Your task to perform on an android device: change keyboard looks Image 0: 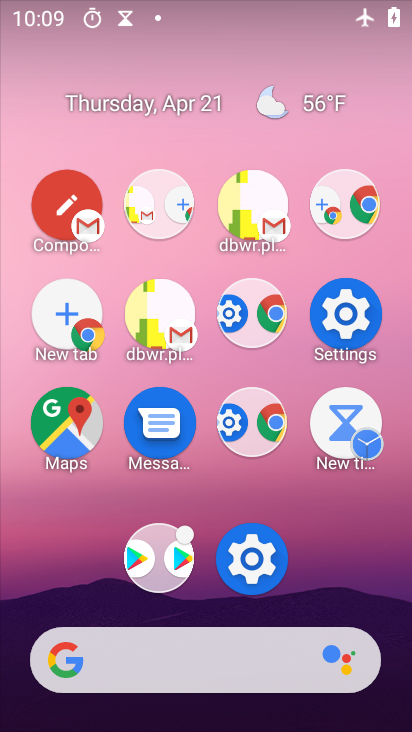
Step 0: click (318, 717)
Your task to perform on an android device: change keyboard looks Image 1: 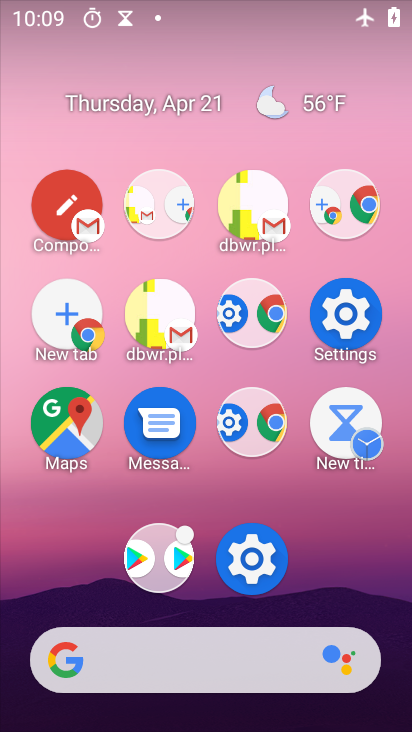
Step 1: drag from (270, 705) to (190, 143)
Your task to perform on an android device: change keyboard looks Image 2: 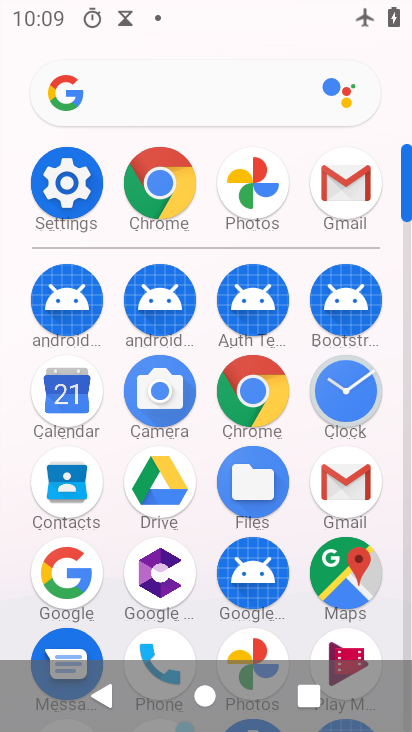
Step 2: drag from (285, 659) to (269, 219)
Your task to perform on an android device: change keyboard looks Image 3: 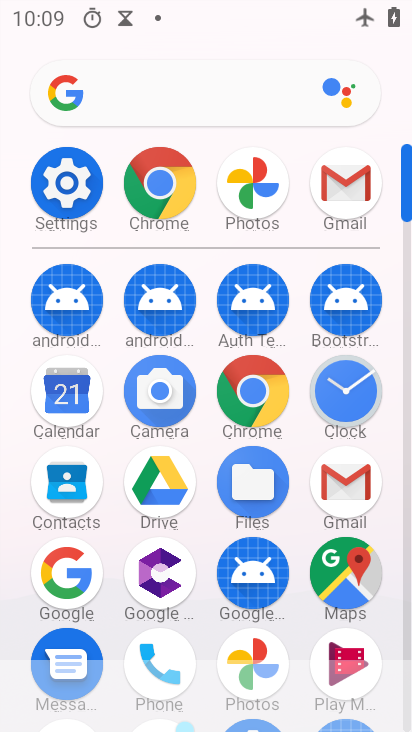
Step 3: click (249, 393)
Your task to perform on an android device: change keyboard looks Image 4: 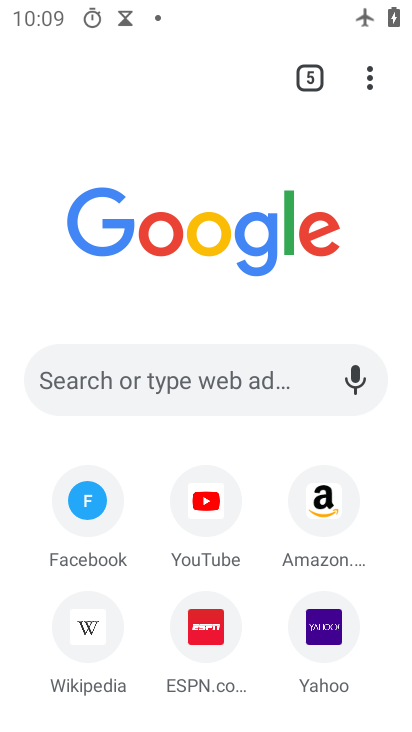
Step 4: press home button
Your task to perform on an android device: change keyboard looks Image 5: 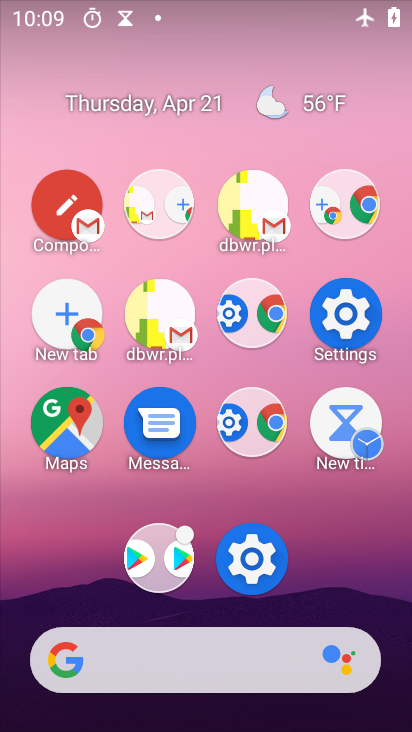
Step 5: drag from (332, 597) to (221, 108)
Your task to perform on an android device: change keyboard looks Image 6: 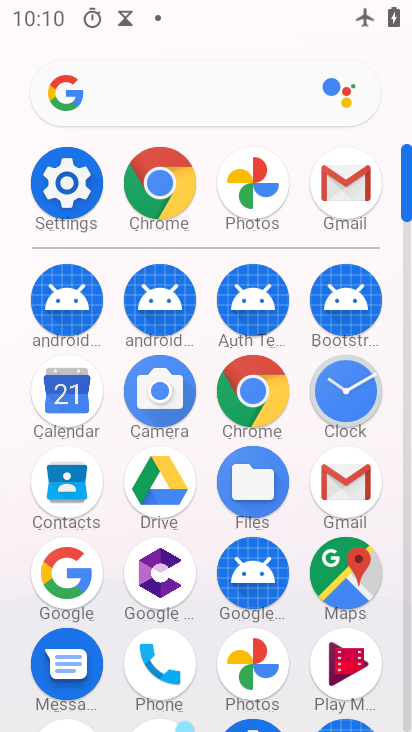
Step 6: click (72, 179)
Your task to perform on an android device: change keyboard looks Image 7: 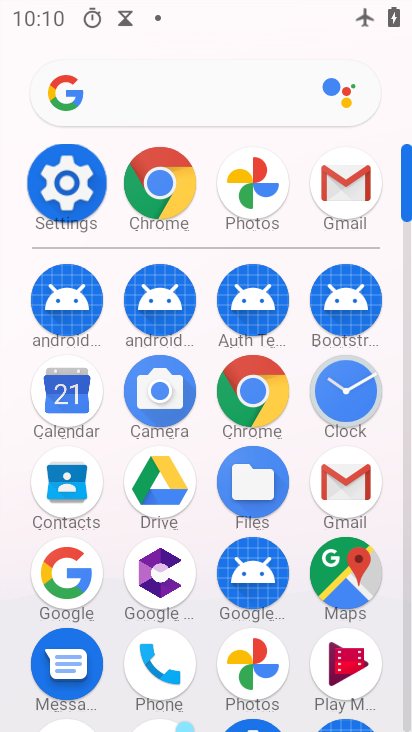
Step 7: click (73, 189)
Your task to perform on an android device: change keyboard looks Image 8: 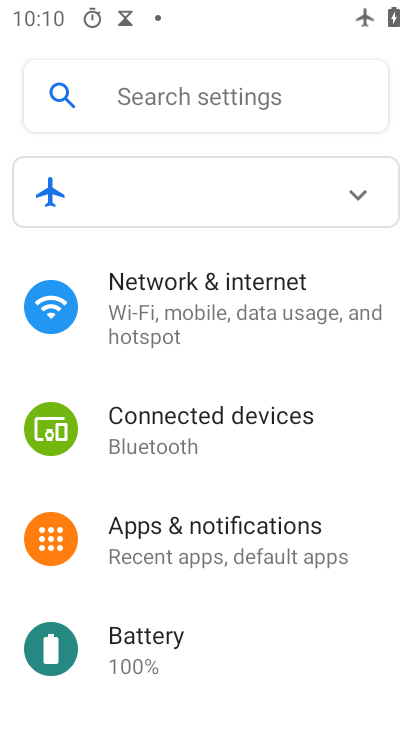
Step 8: click (73, 189)
Your task to perform on an android device: change keyboard looks Image 9: 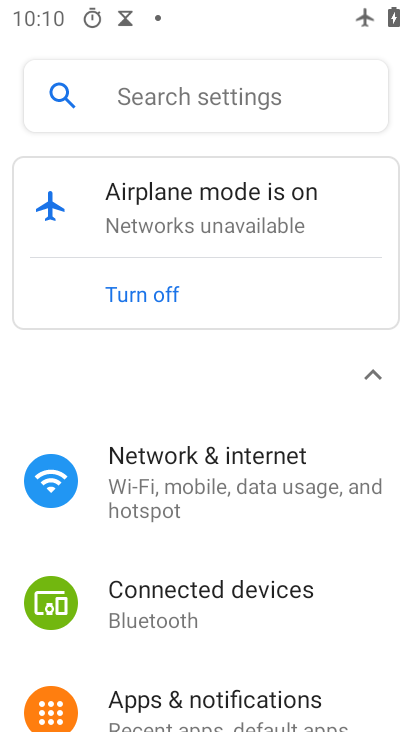
Step 9: drag from (240, 621) to (219, 353)
Your task to perform on an android device: change keyboard looks Image 10: 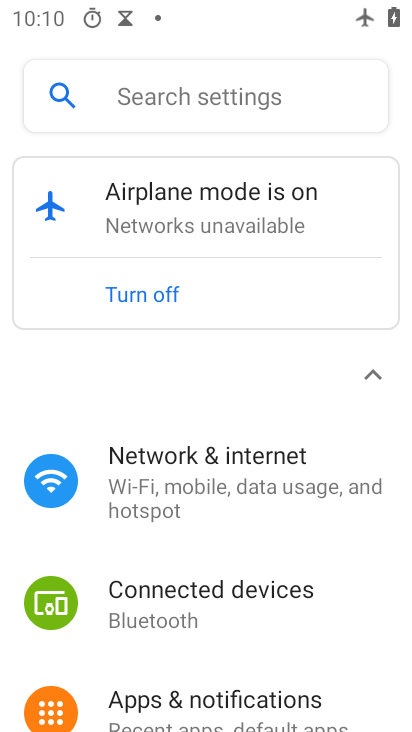
Step 10: click (189, 289)
Your task to perform on an android device: change keyboard looks Image 11: 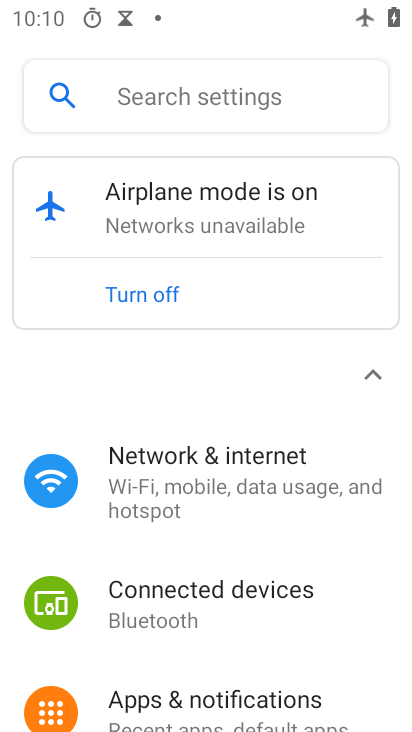
Step 11: drag from (227, 566) to (217, 243)
Your task to perform on an android device: change keyboard looks Image 12: 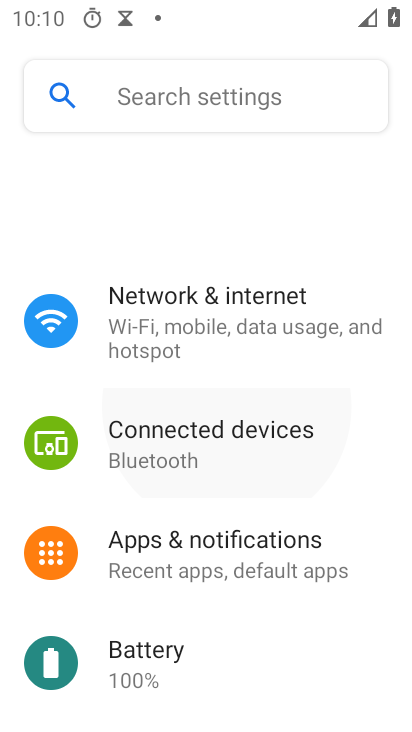
Step 12: drag from (235, 535) to (228, 195)
Your task to perform on an android device: change keyboard looks Image 13: 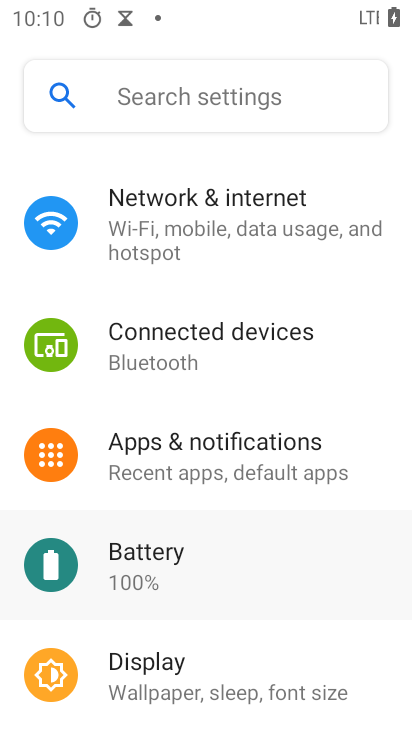
Step 13: drag from (221, 539) to (278, 255)
Your task to perform on an android device: change keyboard looks Image 14: 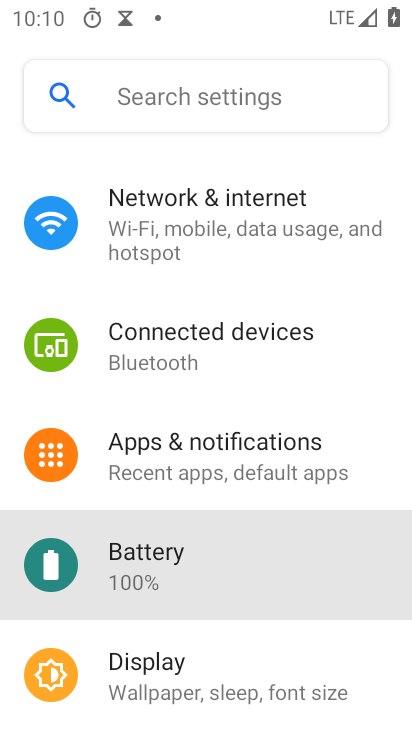
Step 14: drag from (284, 625) to (294, 158)
Your task to perform on an android device: change keyboard looks Image 15: 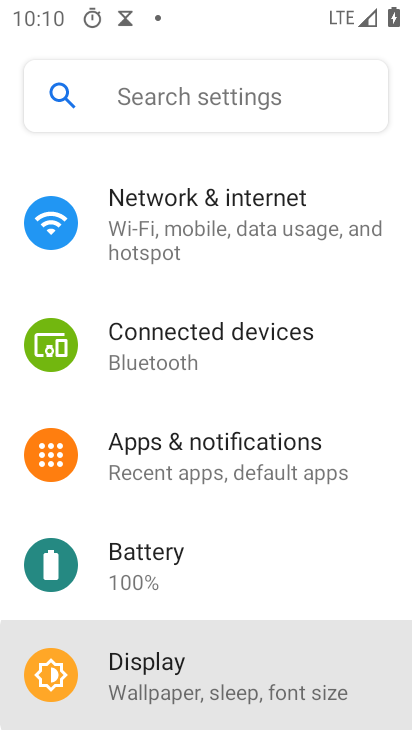
Step 15: drag from (186, 591) to (184, 311)
Your task to perform on an android device: change keyboard looks Image 16: 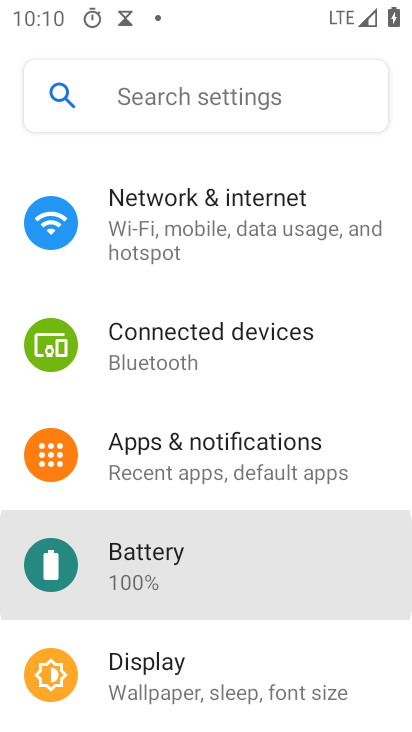
Step 16: drag from (211, 604) to (184, 186)
Your task to perform on an android device: change keyboard looks Image 17: 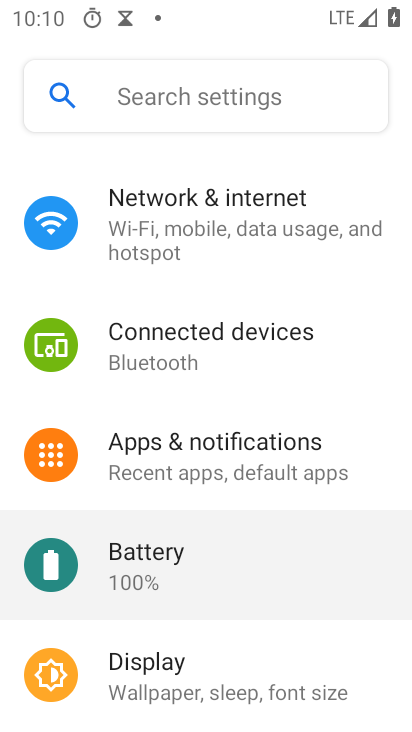
Step 17: drag from (208, 581) to (183, 199)
Your task to perform on an android device: change keyboard looks Image 18: 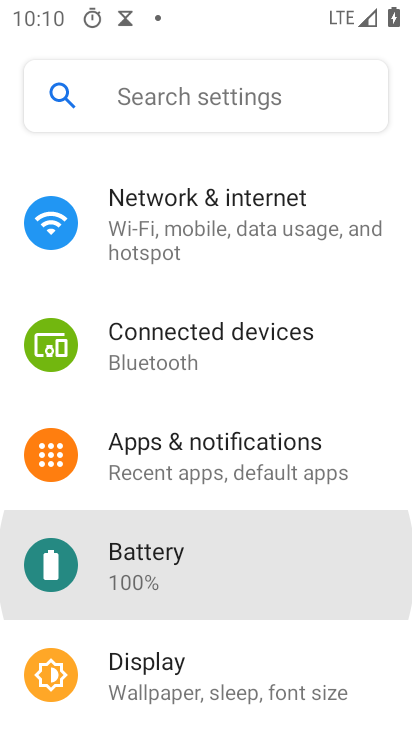
Step 18: drag from (217, 584) to (263, 412)
Your task to perform on an android device: change keyboard looks Image 19: 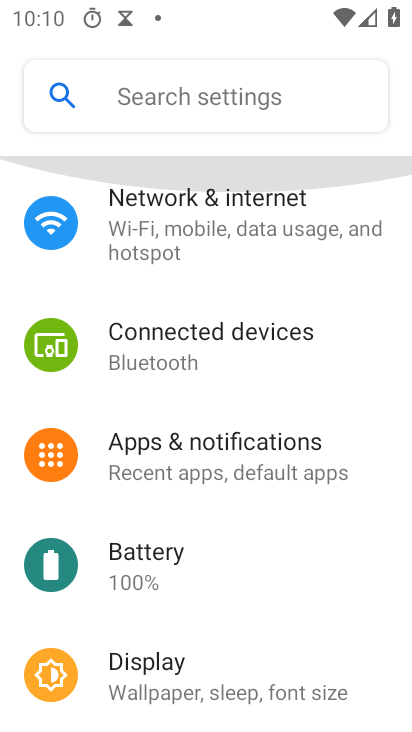
Step 19: drag from (206, 683) to (204, 392)
Your task to perform on an android device: change keyboard looks Image 20: 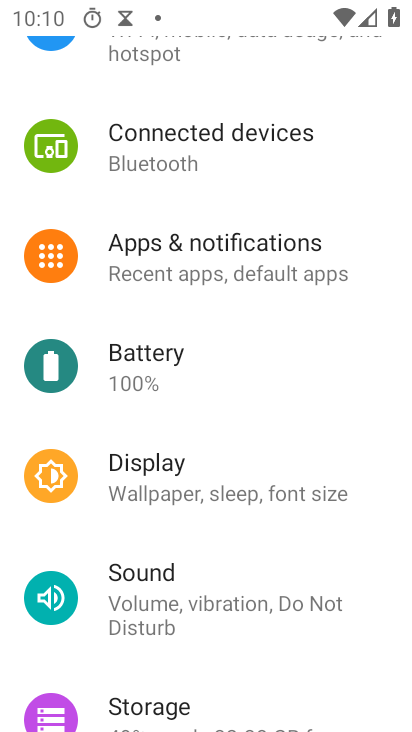
Step 20: drag from (207, 549) to (76, 177)
Your task to perform on an android device: change keyboard looks Image 21: 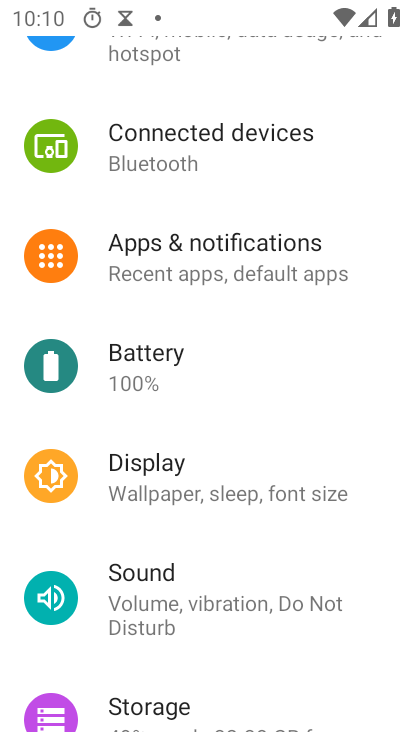
Step 21: drag from (245, 583) to (154, 377)
Your task to perform on an android device: change keyboard looks Image 22: 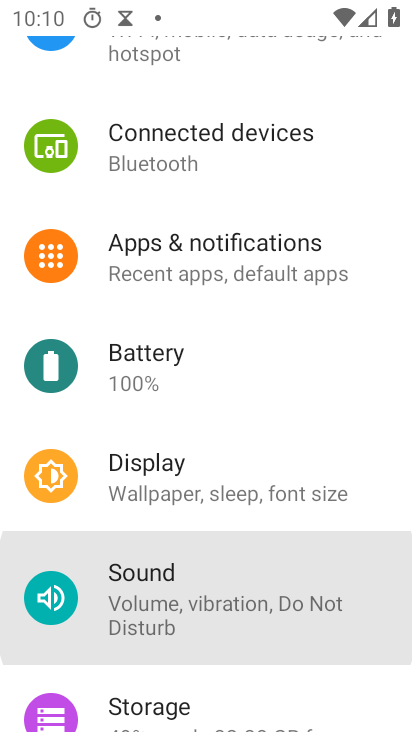
Step 22: drag from (272, 598) to (243, 242)
Your task to perform on an android device: change keyboard looks Image 23: 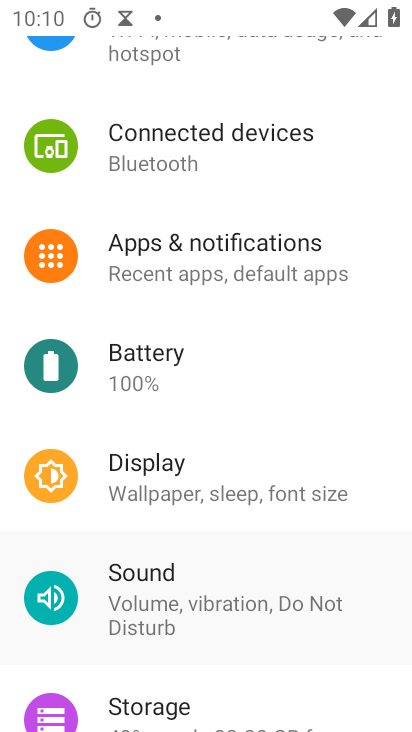
Step 23: drag from (250, 513) to (229, 241)
Your task to perform on an android device: change keyboard looks Image 24: 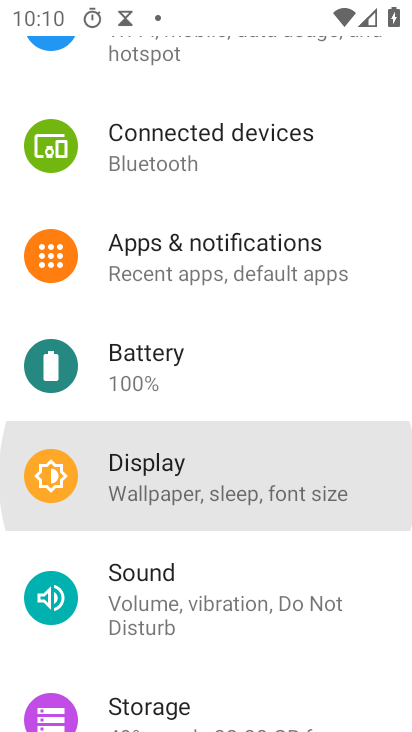
Step 24: drag from (270, 595) to (266, 207)
Your task to perform on an android device: change keyboard looks Image 25: 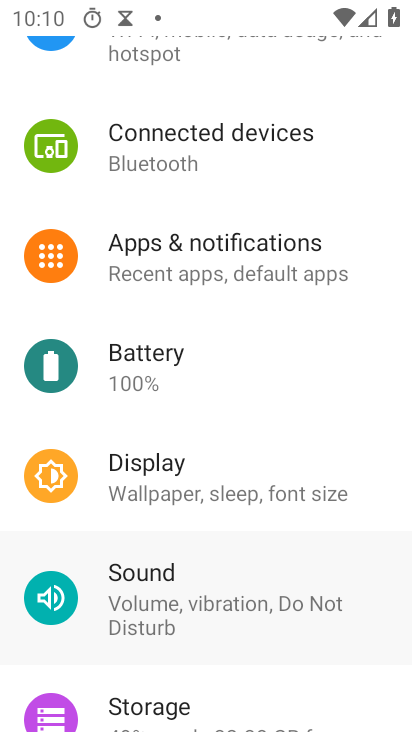
Step 25: drag from (209, 453) to (170, 207)
Your task to perform on an android device: change keyboard looks Image 26: 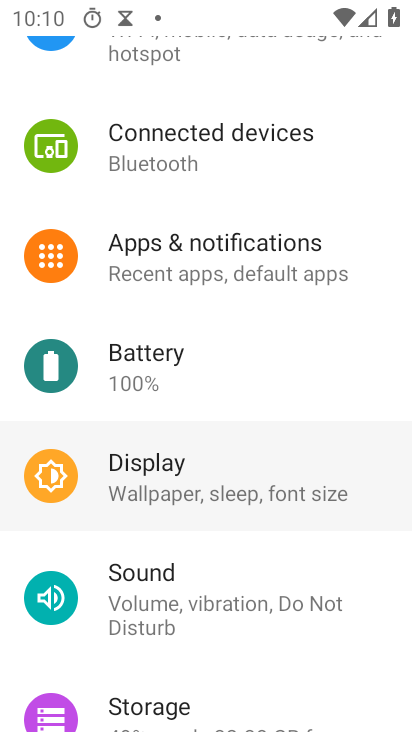
Step 26: drag from (251, 608) to (233, 209)
Your task to perform on an android device: change keyboard looks Image 27: 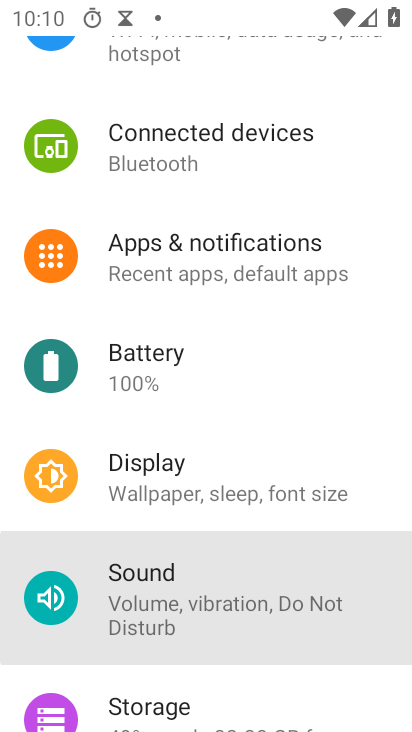
Step 27: drag from (175, 653) to (169, 232)
Your task to perform on an android device: change keyboard looks Image 28: 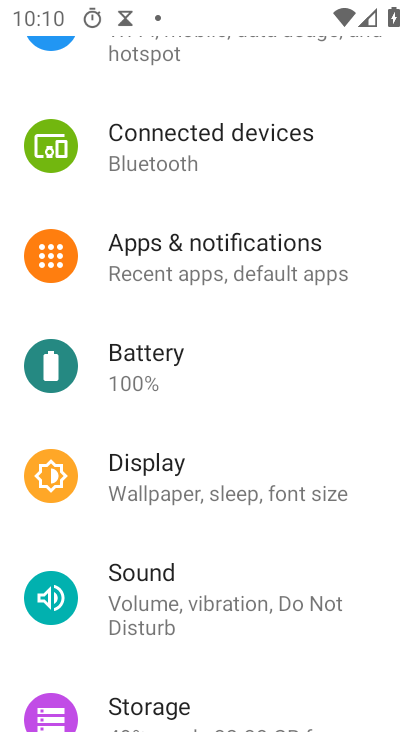
Step 28: drag from (191, 621) to (140, 179)
Your task to perform on an android device: change keyboard looks Image 29: 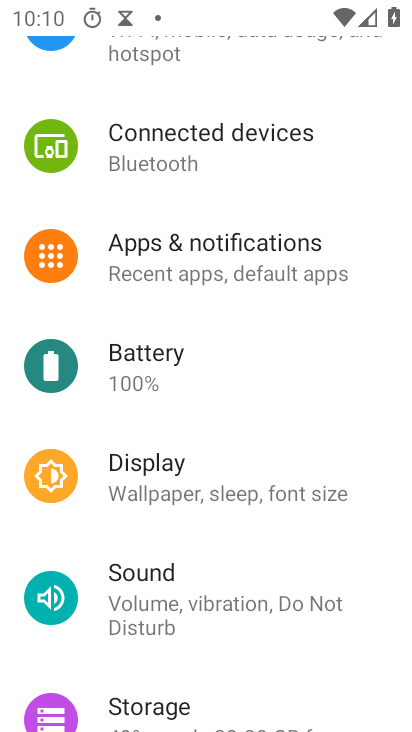
Step 29: drag from (261, 619) to (177, 328)
Your task to perform on an android device: change keyboard looks Image 30: 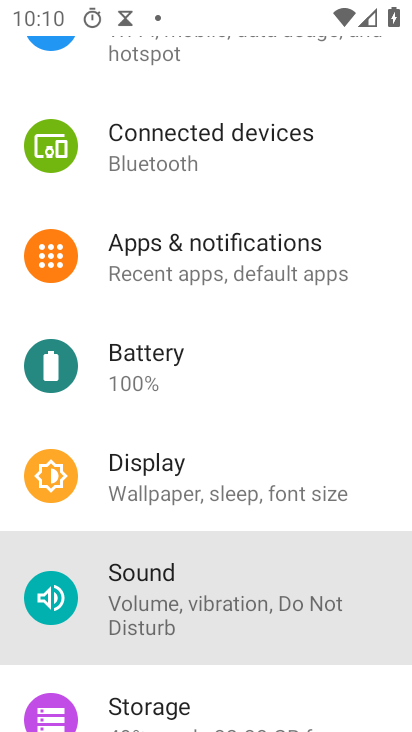
Step 30: drag from (207, 604) to (169, 309)
Your task to perform on an android device: change keyboard looks Image 31: 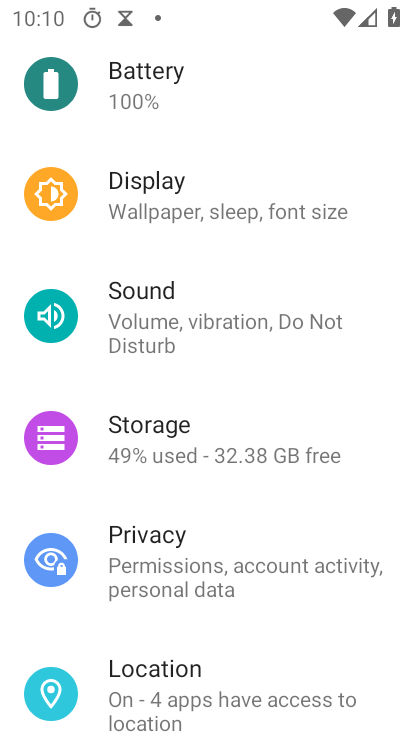
Step 31: drag from (216, 633) to (198, 275)
Your task to perform on an android device: change keyboard looks Image 32: 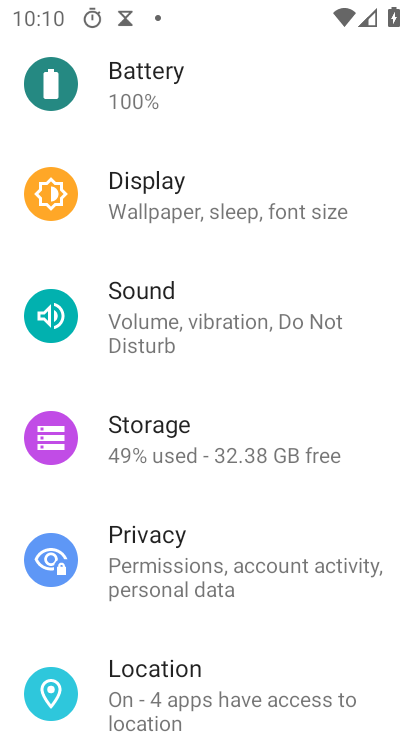
Step 32: drag from (222, 542) to (211, 181)
Your task to perform on an android device: change keyboard looks Image 33: 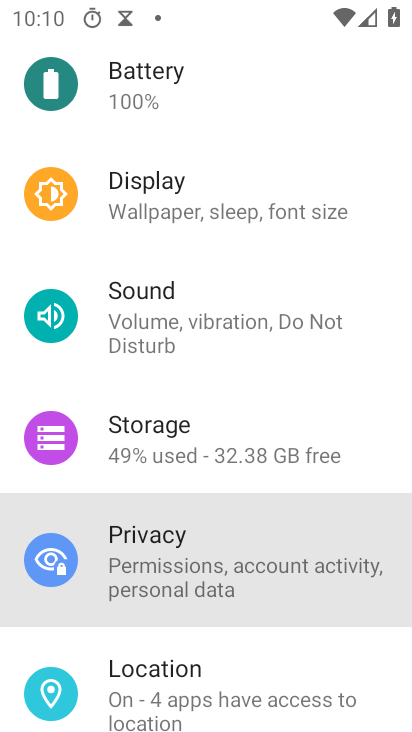
Step 33: drag from (286, 605) to (267, 133)
Your task to perform on an android device: change keyboard looks Image 34: 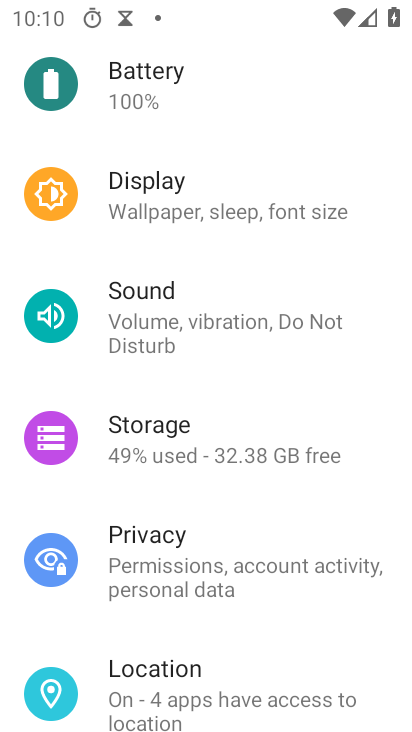
Step 34: drag from (221, 569) to (206, 322)
Your task to perform on an android device: change keyboard looks Image 35: 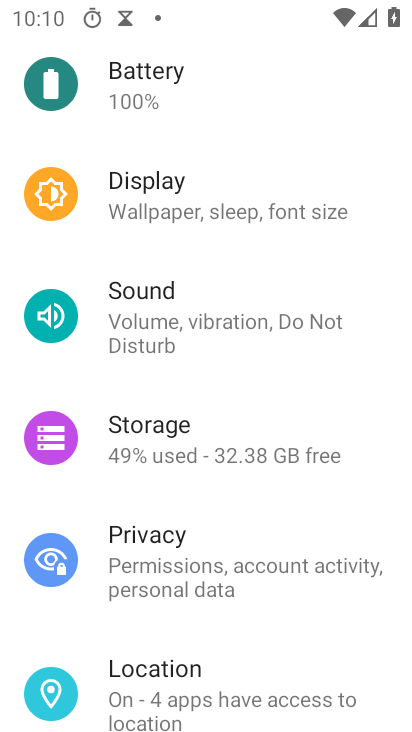
Step 35: drag from (243, 592) to (188, 204)
Your task to perform on an android device: change keyboard looks Image 36: 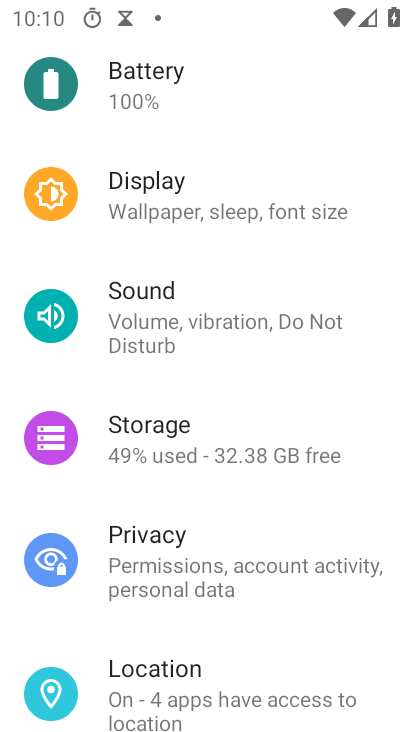
Step 36: drag from (185, 583) to (179, 214)
Your task to perform on an android device: change keyboard looks Image 37: 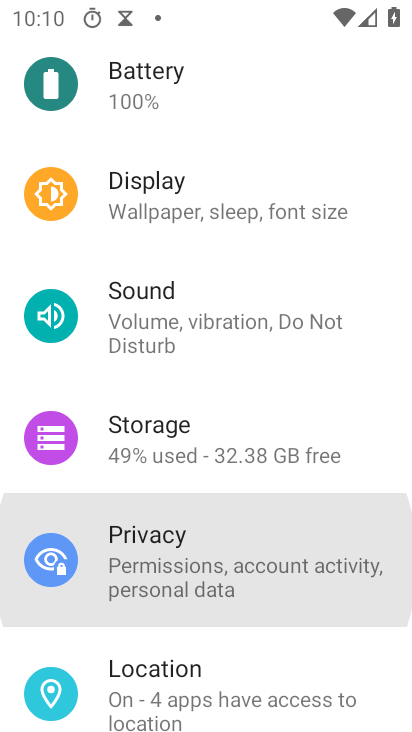
Step 37: drag from (265, 533) to (239, 153)
Your task to perform on an android device: change keyboard looks Image 38: 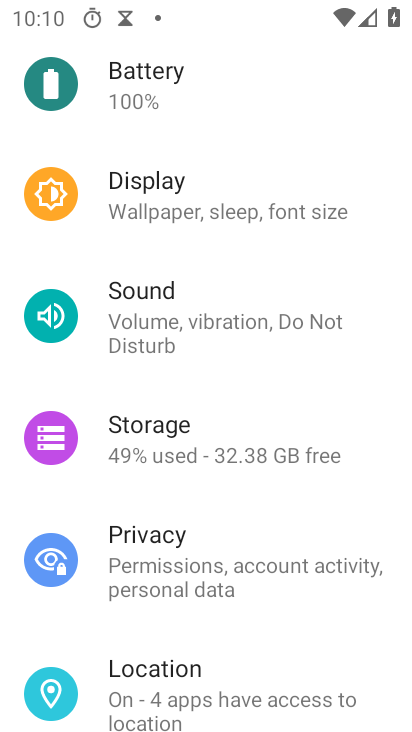
Step 38: drag from (182, 422) to (194, 208)
Your task to perform on an android device: change keyboard looks Image 39: 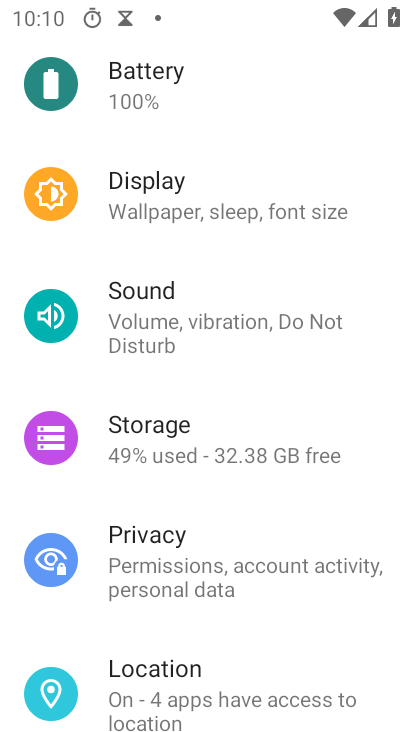
Step 39: click (183, 224)
Your task to perform on an android device: change keyboard looks Image 40: 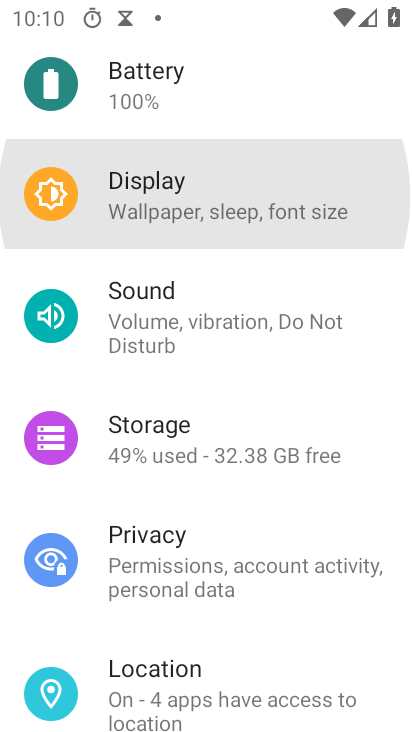
Step 40: drag from (259, 541) to (223, 161)
Your task to perform on an android device: change keyboard looks Image 41: 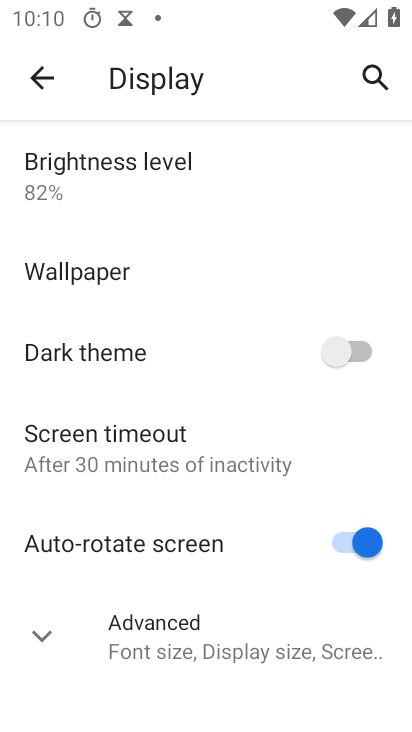
Step 41: drag from (258, 522) to (219, 179)
Your task to perform on an android device: change keyboard looks Image 42: 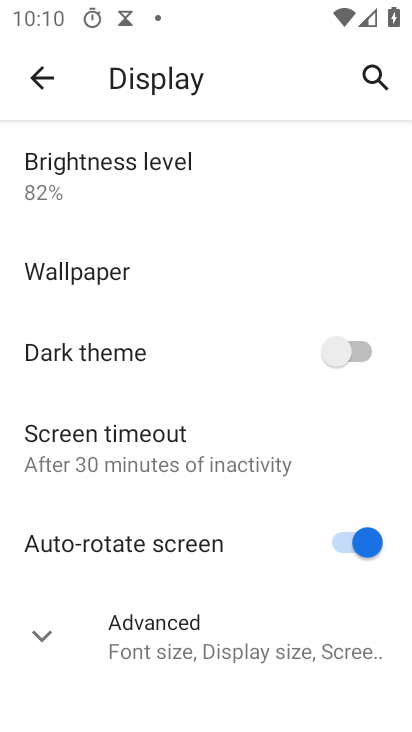
Step 42: click (34, 71)
Your task to perform on an android device: change keyboard looks Image 43: 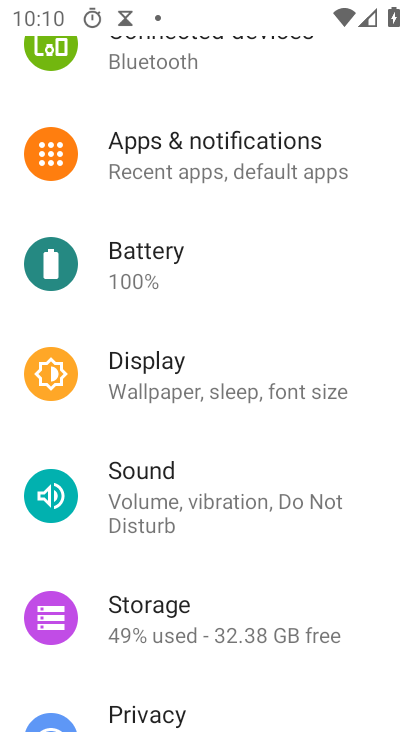
Step 43: drag from (195, 604) to (179, 332)
Your task to perform on an android device: change keyboard looks Image 44: 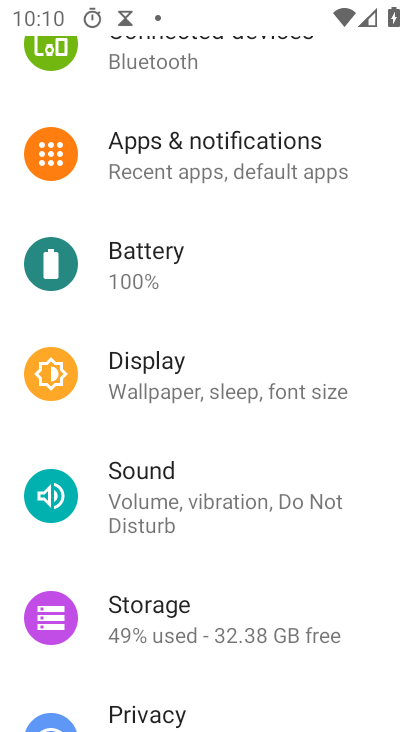
Step 44: drag from (200, 570) to (192, 311)
Your task to perform on an android device: change keyboard looks Image 45: 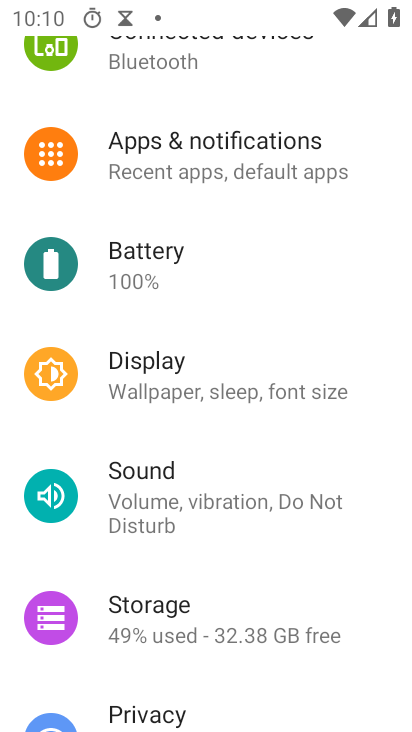
Step 45: drag from (181, 609) to (360, 470)
Your task to perform on an android device: change keyboard looks Image 46: 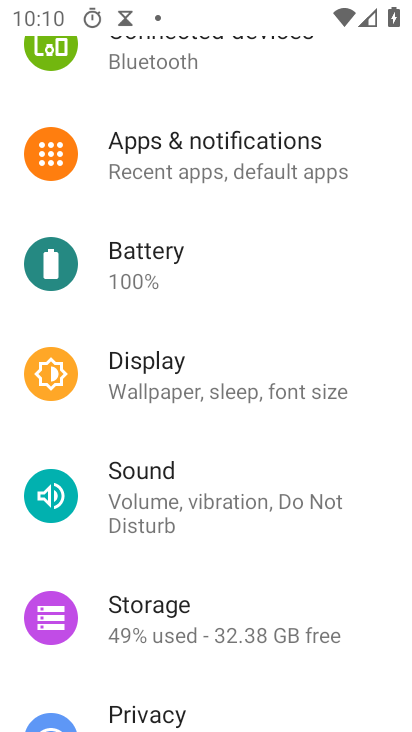
Step 46: drag from (193, 569) to (146, 203)
Your task to perform on an android device: change keyboard looks Image 47: 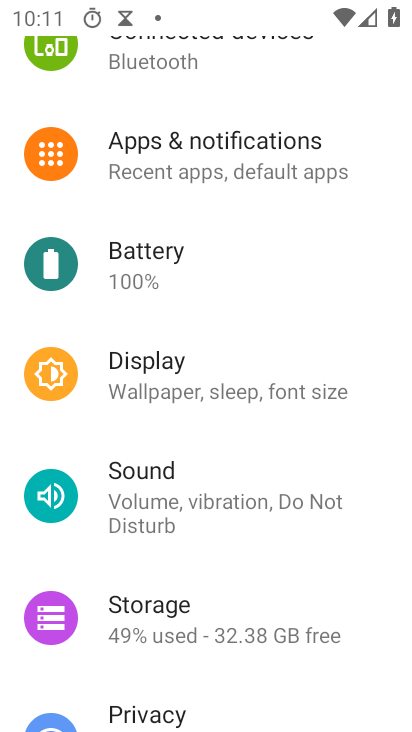
Step 47: drag from (153, 462) to (170, 168)
Your task to perform on an android device: change keyboard looks Image 48: 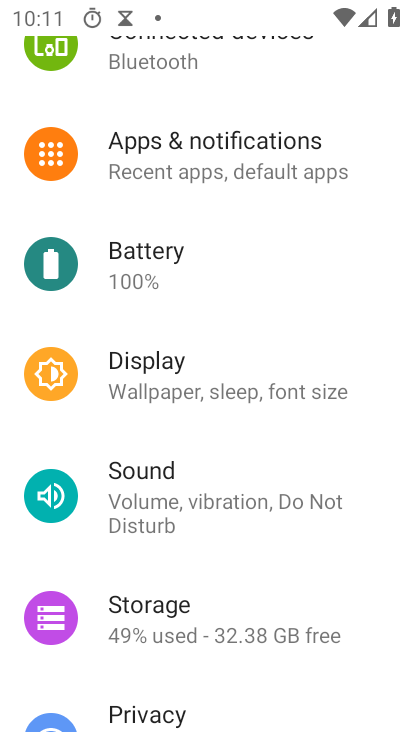
Step 48: drag from (214, 458) to (204, 178)
Your task to perform on an android device: change keyboard looks Image 49: 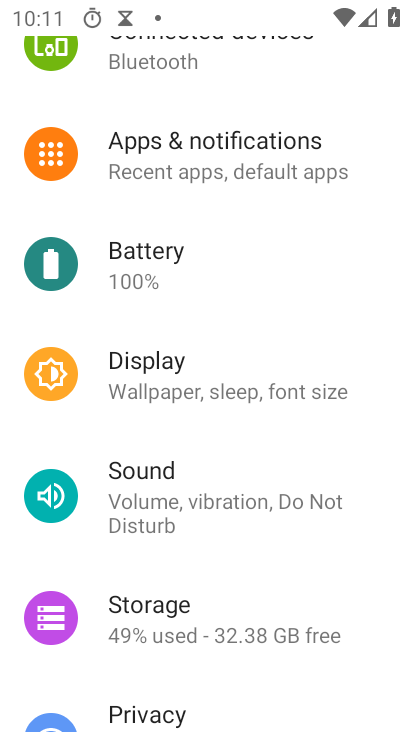
Step 49: click (184, 130)
Your task to perform on an android device: change keyboard looks Image 50: 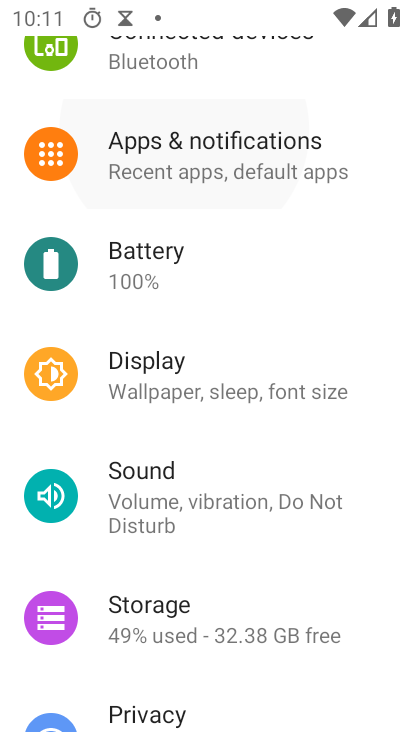
Step 50: drag from (247, 584) to (243, 238)
Your task to perform on an android device: change keyboard looks Image 51: 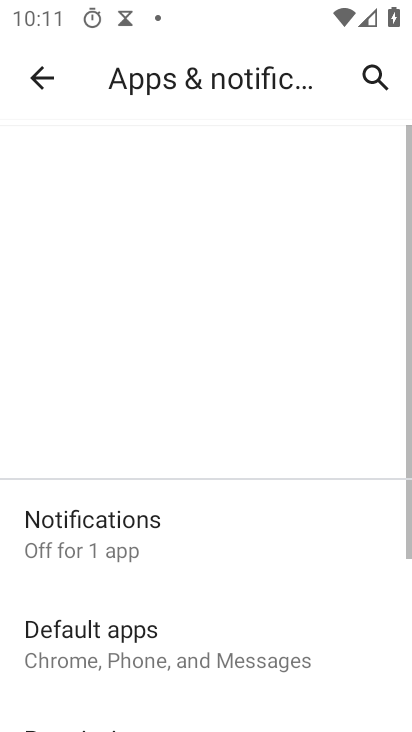
Step 51: drag from (223, 524) to (203, 212)
Your task to perform on an android device: change keyboard looks Image 52: 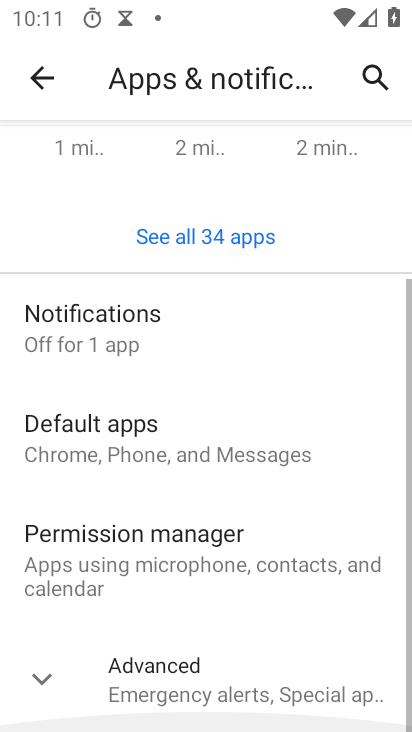
Step 52: click (42, 78)
Your task to perform on an android device: change keyboard looks Image 53: 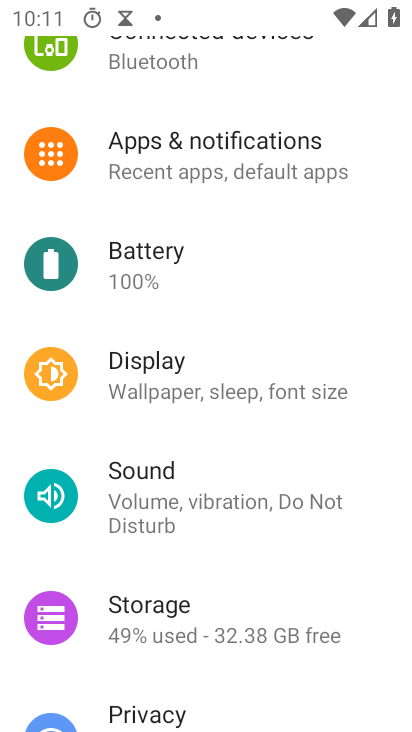
Step 53: drag from (207, 517) to (411, 520)
Your task to perform on an android device: change keyboard looks Image 54: 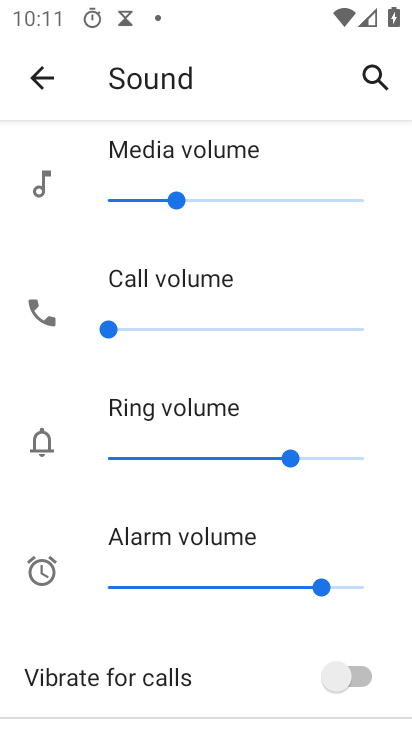
Step 54: click (40, 73)
Your task to perform on an android device: change keyboard looks Image 55: 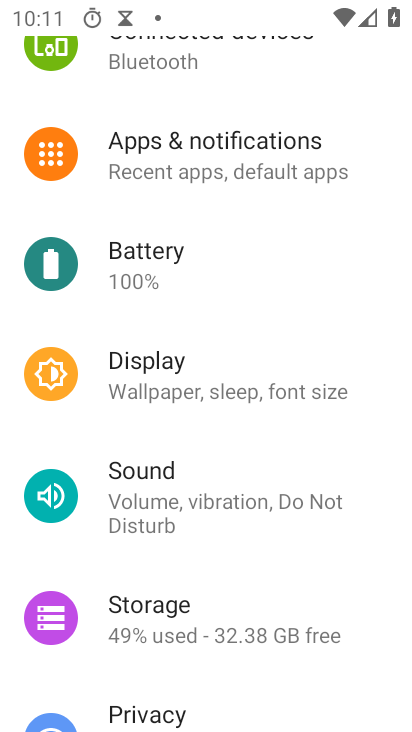
Step 55: drag from (219, 565) to (153, 29)
Your task to perform on an android device: change keyboard looks Image 56: 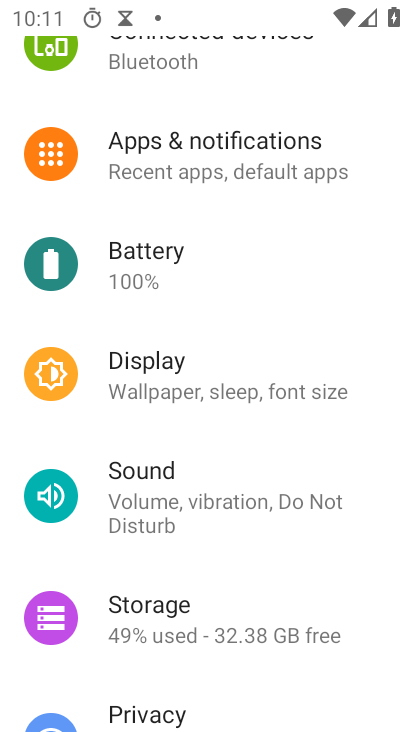
Step 56: drag from (185, 501) to (199, 65)
Your task to perform on an android device: change keyboard looks Image 57: 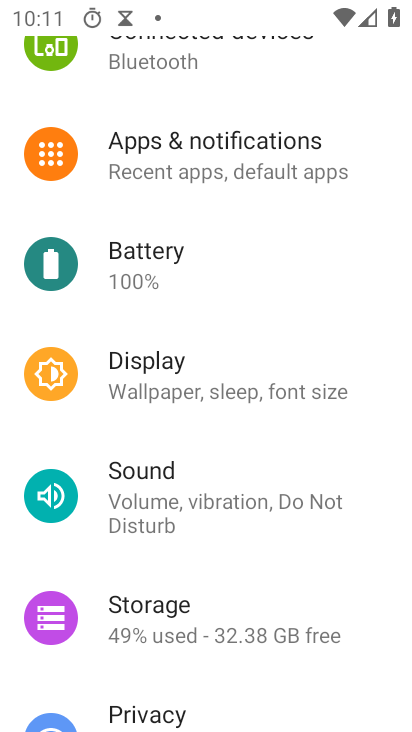
Step 57: drag from (217, 568) to (206, 62)
Your task to perform on an android device: change keyboard looks Image 58: 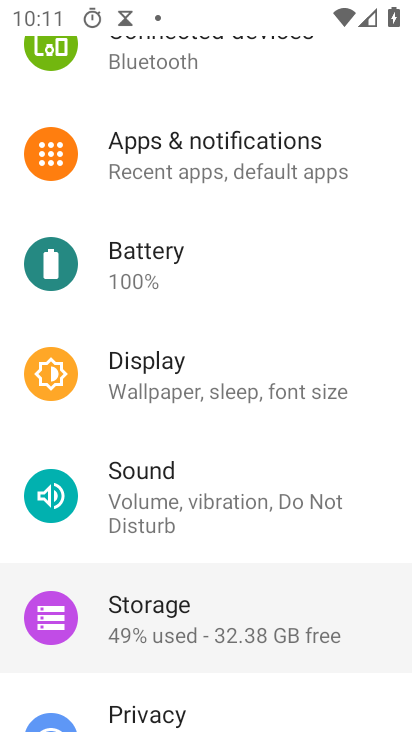
Step 58: drag from (208, 446) to (169, 92)
Your task to perform on an android device: change keyboard looks Image 59: 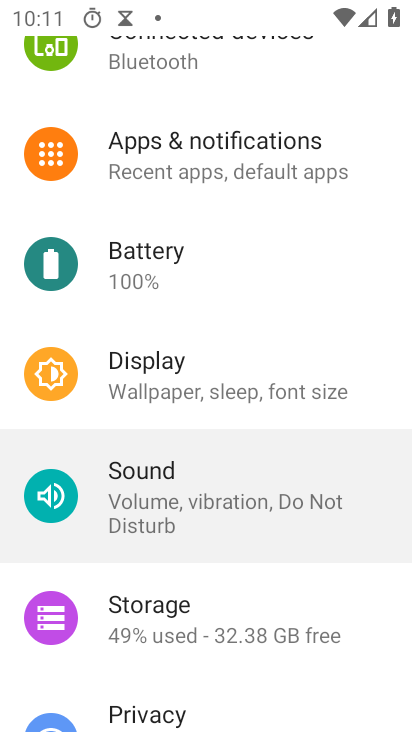
Step 59: drag from (205, 509) to (214, 222)
Your task to perform on an android device: change keyboard looks Image 60: 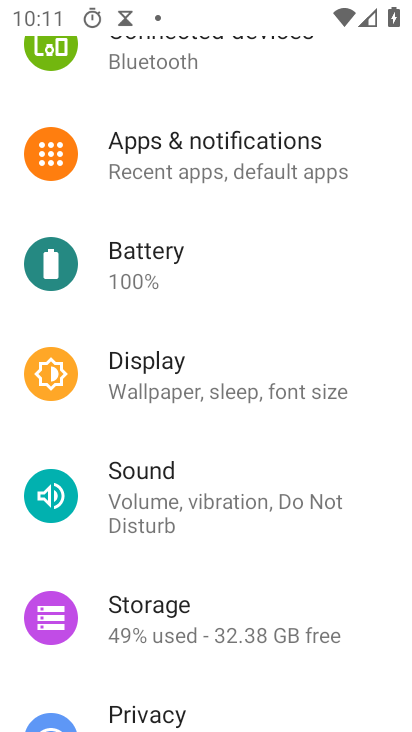
Step 60: drag from (239, 543) to (177, 148)
Your task to perform on an android device: change keyboard looks Image 61: 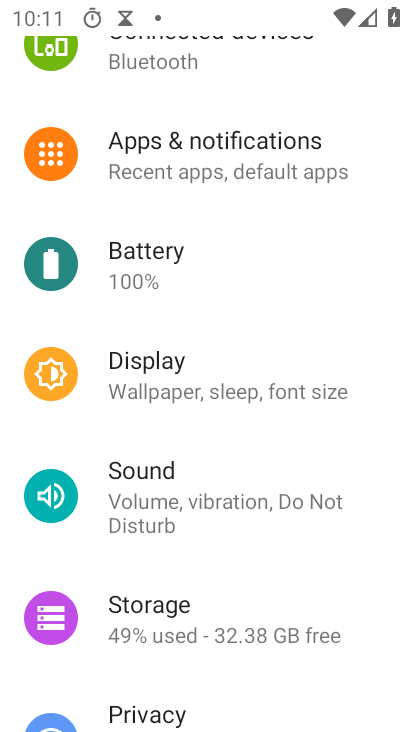
Step 61: drag from (223, 520) to (226, 157)
Your task to perform on an android device: change keyboard looks Image 62: 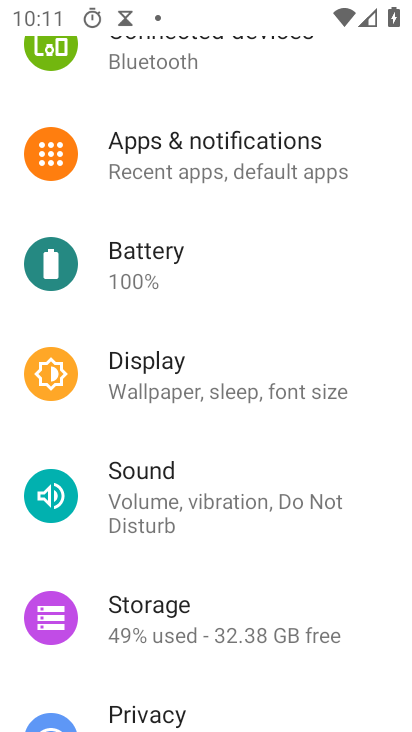
Step 62: drag from (217, 548) to (182, 89)
Your task to perform on an android device: change keyboard looks Image 63: 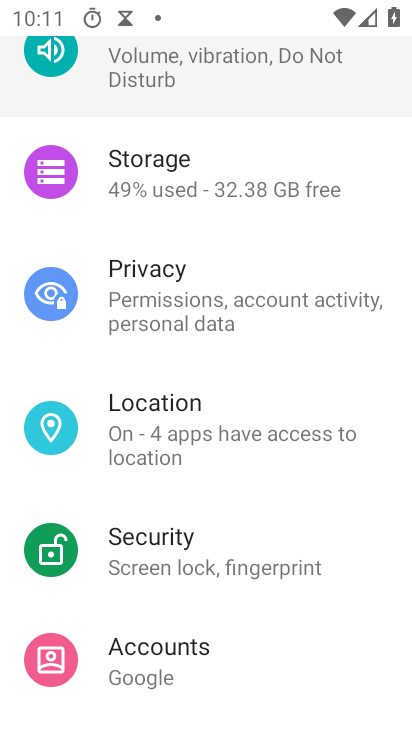
Step 63: drag from (208, 523) to (128, 128)
Your task to perform on an android device: change keyboard looks Image 64: 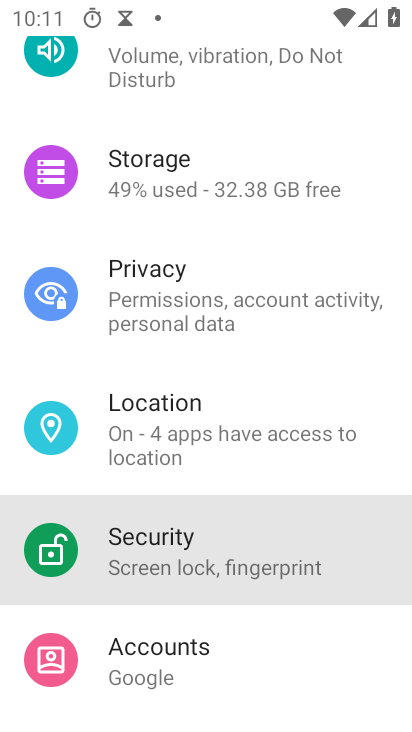
Step 64: drag from (252, 497) to (201, 39)
Your task to perform on an android device: change keyboard looks Image 65: 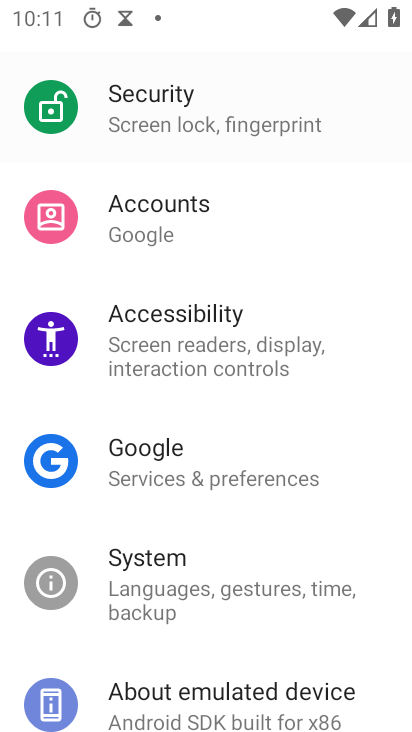
Step 65: drag from (199, 522) to (174, 212)
Your task to perform on an android device: change keyboard looks Image 66: 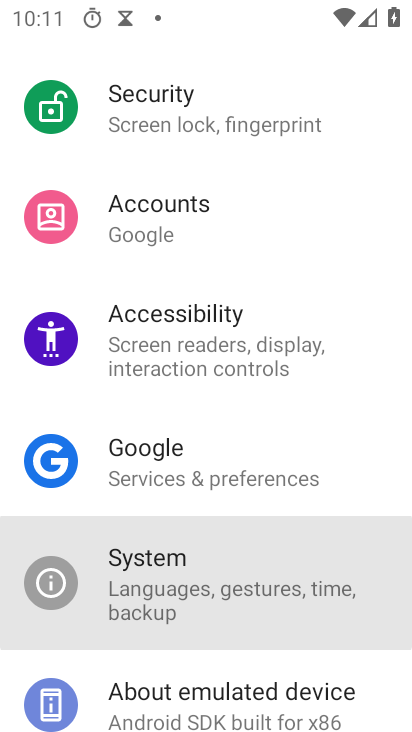
Step 66: drag from (201, 549) to (220, 109)
Your task to perform on an android device: change keyboard looks Image 67: 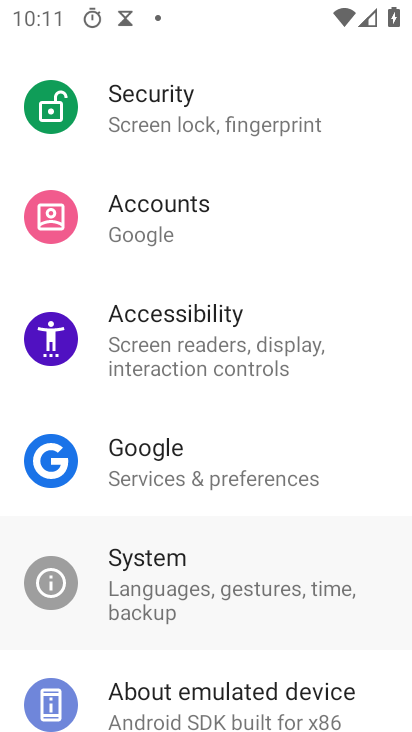
Step 67: drag from (219, 560) to (155, 90)
Your task to perform on an android device: change keyboard looks Image 68: 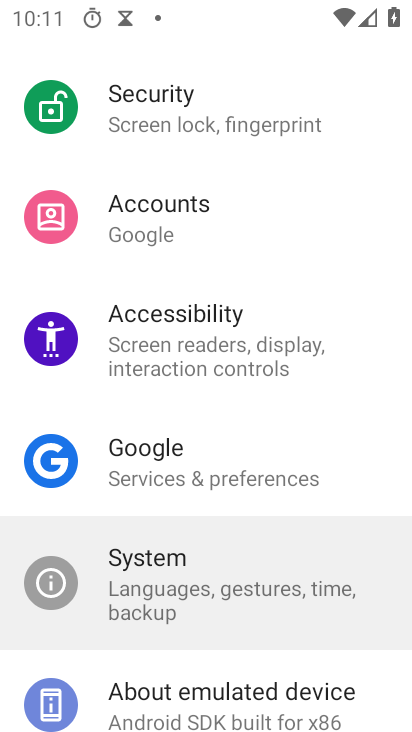
Step 68: drag from (224, 608) to (253, 218)
Your task to perform on an android device: change keyboard looks Image 69: 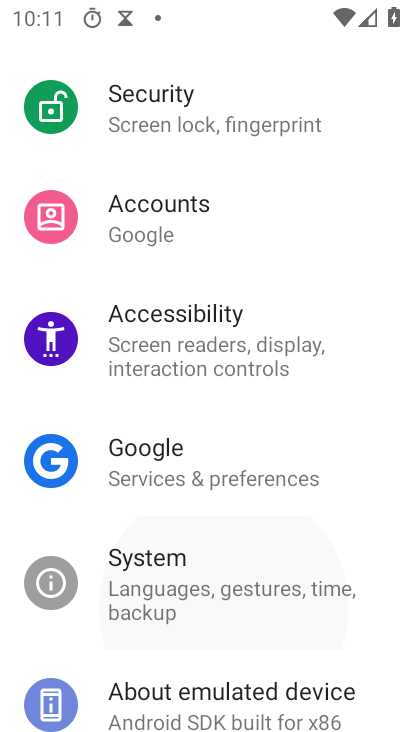
Step 69: drag from (259, 613) to (207, 230)
Your task to perform on an android device: change keyboard looks Image 70: 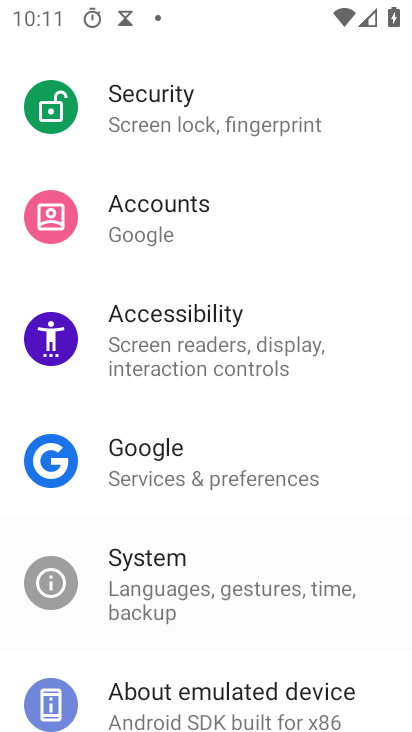
Step 70: drag from (206, 539) to (169, 110)
Your task to perform on an android device: change keyboard looks Image 71: 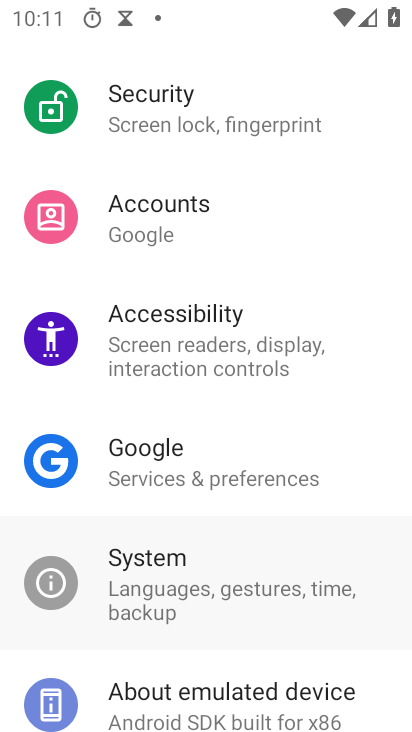
Step 71: drag from (224, 472) to (163, 40)
Your task to perform on an android device: change keyboard looks Image 72: 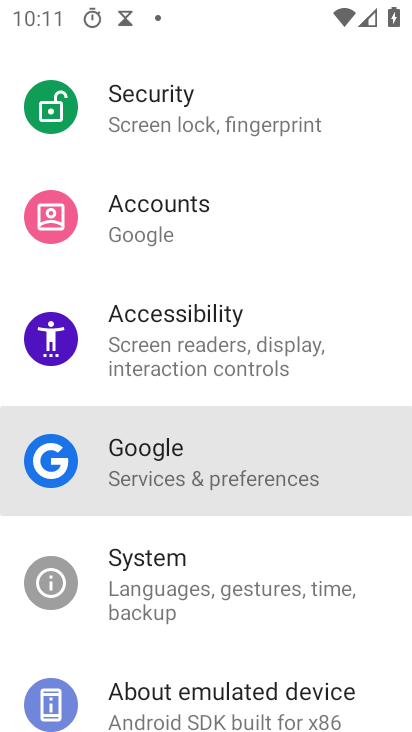
Step 72: drag from (191, 557) to (130, 69)
Your task to perform on an android device: change keyboard looks Image 73: 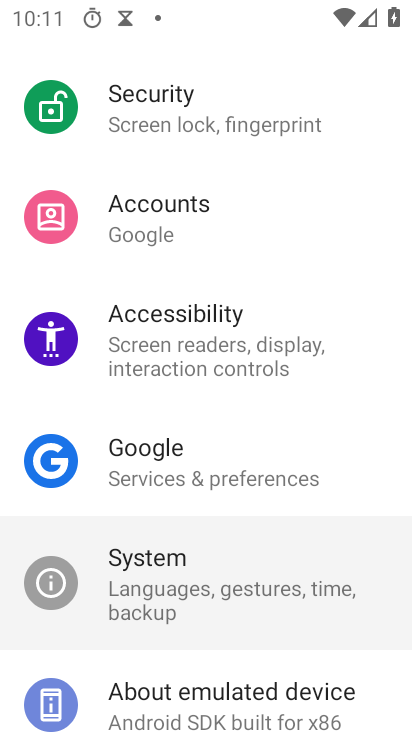
Step 73: drag from (177, 460) to (164, 168)
Your task to perform on an android device: change keyboard looks Image 74: 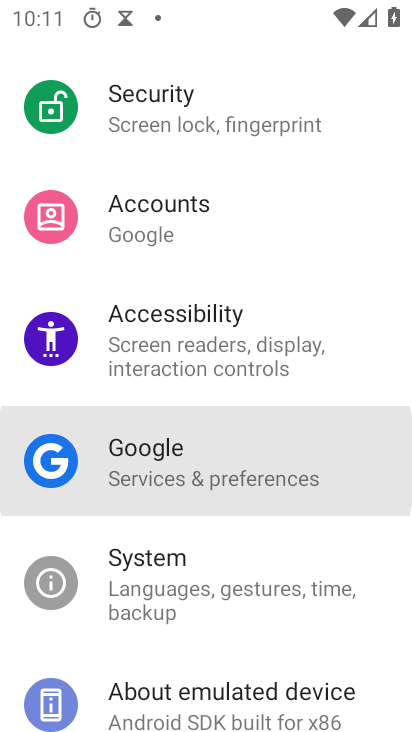
Step 74: drag from (192, 451) to (163, 10)
Your task to perform on an android device: change keyboard looks Image 75: 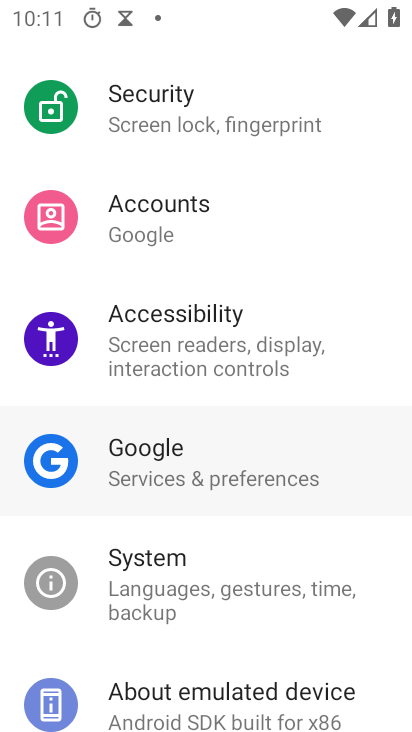
Step 75: drag from (237, 439) to (195, 8)
Your task to perform on an android device: change keyboard looks Image 76: 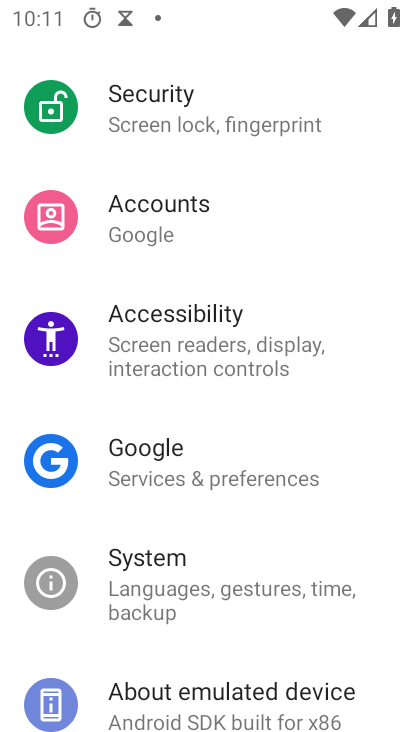
Step 76: drag from (173, 482) to (127, 153)
Your task to perform on an android device: change keyboard looks Image 77: 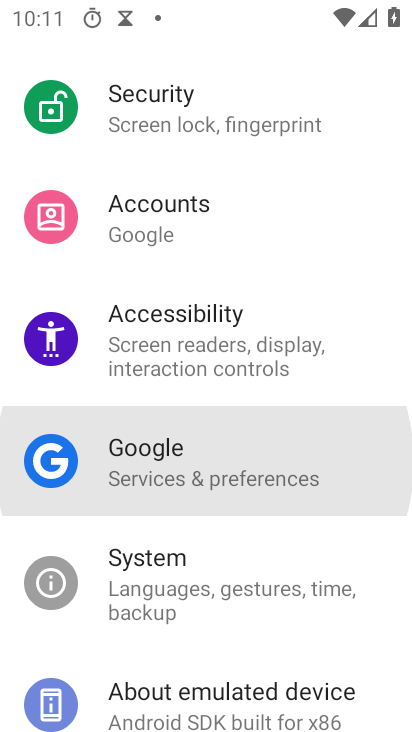
Step 77: drag from (167, 575) to (154, 195)
Your task to perform on an android device: change keyboard looks Image 78: 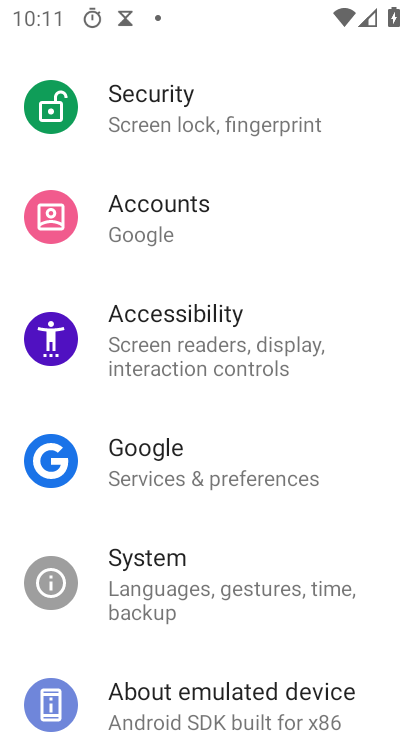
Step 78: drag from (179, 502) to (167, 191)
Your task to perform on an android device: change keyboard looks Image 79: 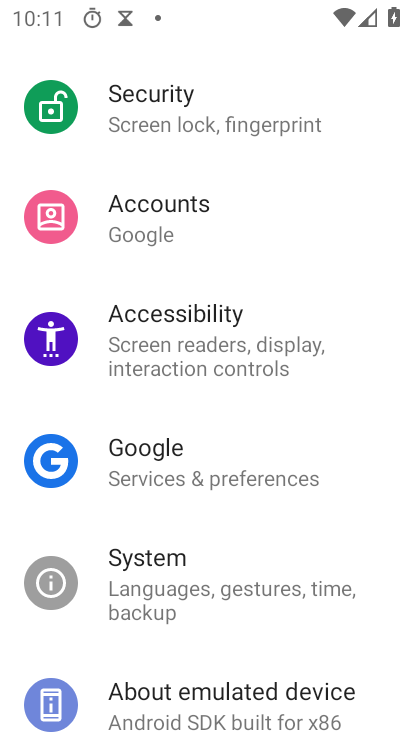
Step 79: click (153, 591)
Your task to perform on an android device: change keyboard looks Image 80: 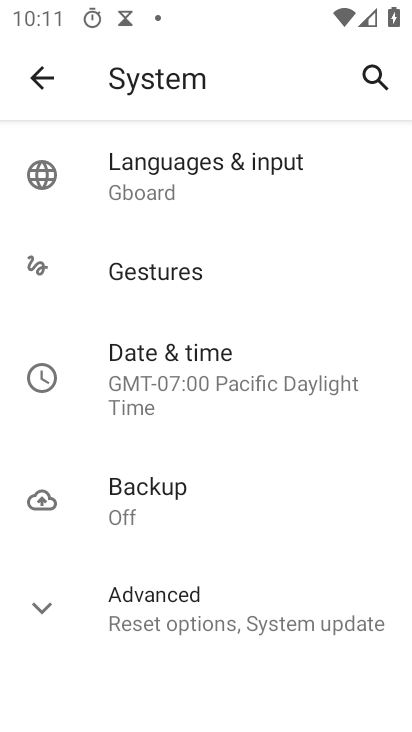
Step 80: click (140, 171)
Your task to perform on an android device: change keyboard looks Image 81: 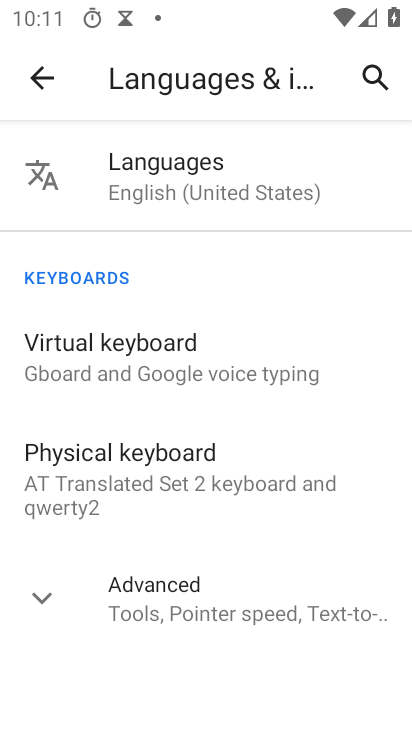
Step 81: click (117, 352)
Your task to perform on an android device: change keyboard looks Image 82: 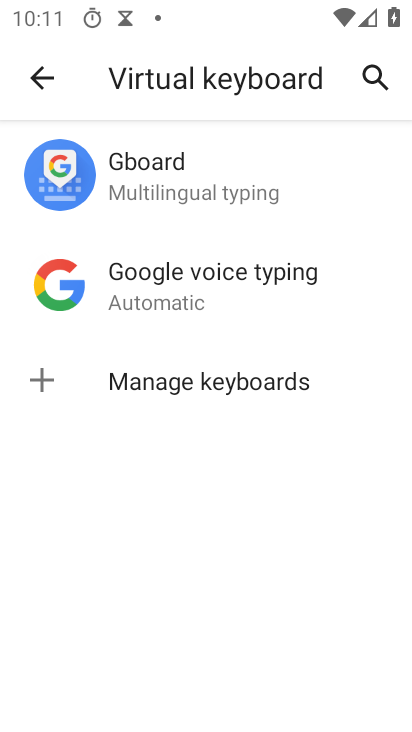
Step 82: click (128, 176)
Your task to perform on an android device: change keyboard looks Image 83: 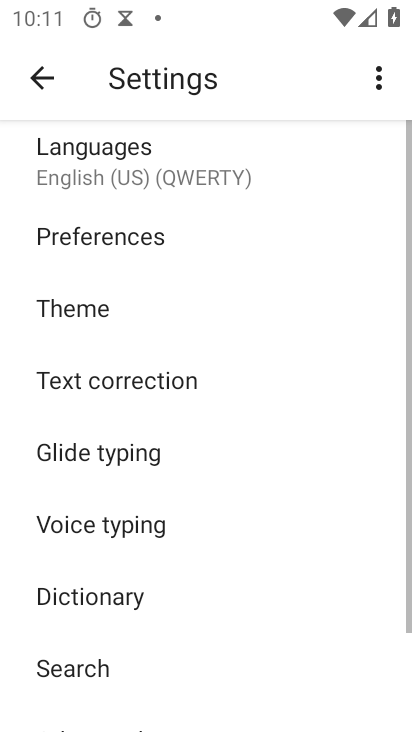
Step 83: click (134, 180)
Your task to perform on an android device: change keyboard looks Image 84: 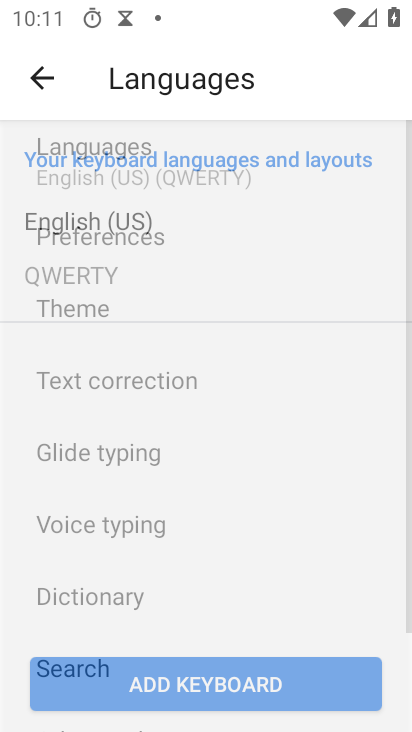
Step 84: click (63, 319)
Your task to perform on an android device: change keyboard looks Image 85: 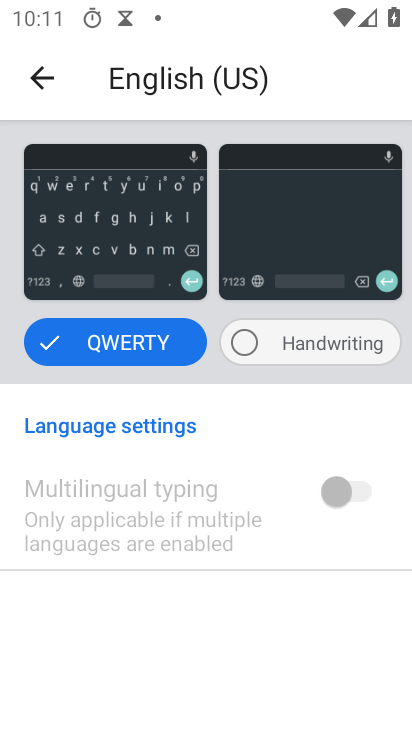
Step 85: click (43, 72)
Your task to perform on an android device: change keyboard looks Image 86: 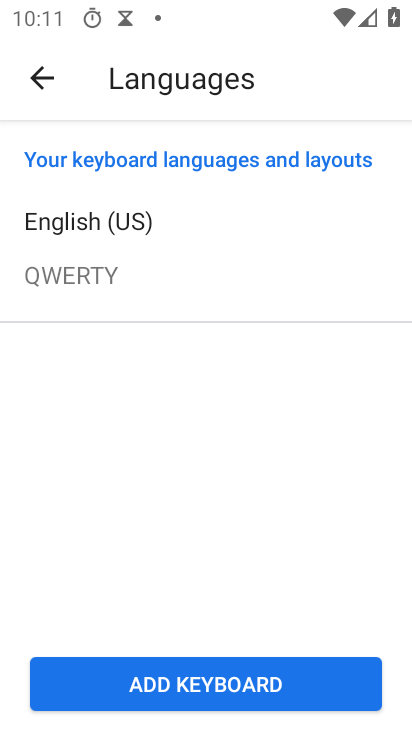
Step 86: click (39, 65)
Your task to perform on an android device: change keyboard looks Image 87: 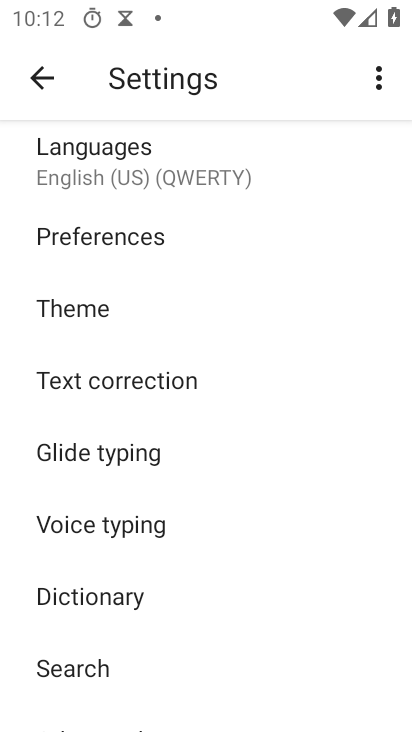
Step 87: click (52, 304)
Your task to perform on an android device: change keyboard looks Image 88: 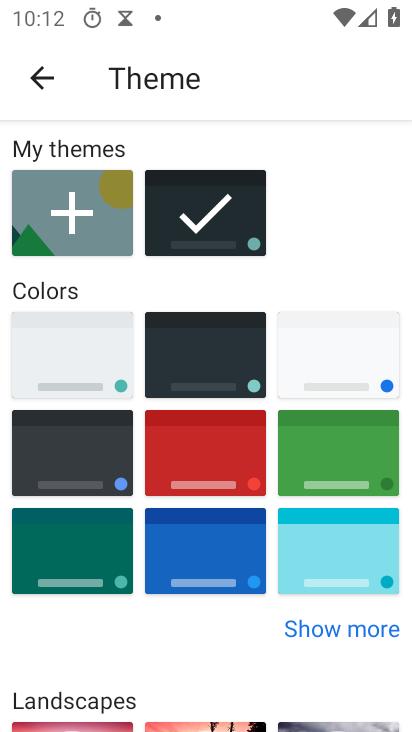
Step 88: click (208, 456)
Your task to perform on an android device: change keyboard looks Image 89: 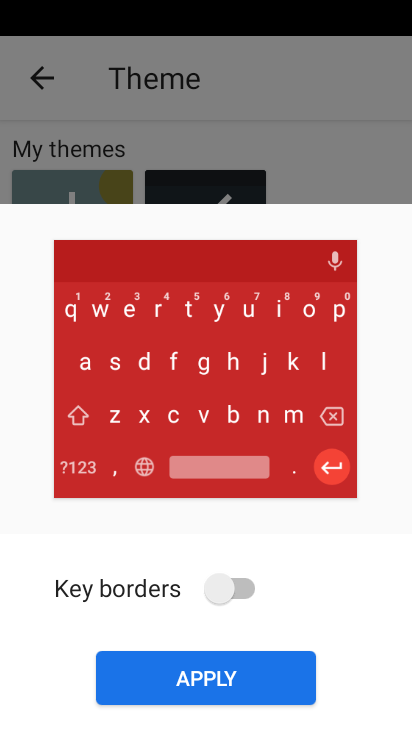
Step 89: click (230, 683)
Your task to perform on an android device: change keyboard looks Image 90: 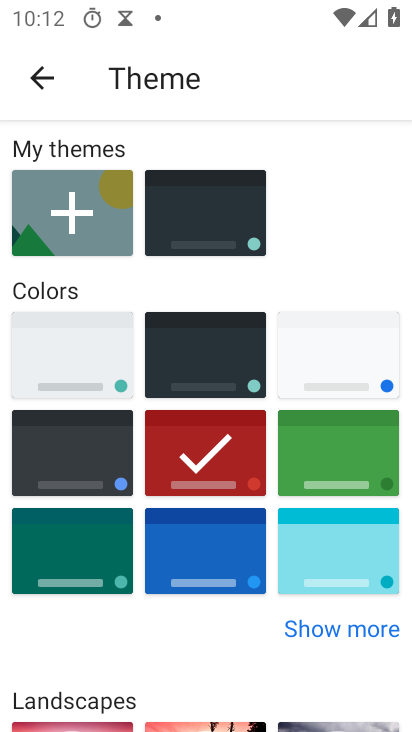
Step 90: task complete